Your task to perform on an android device: Open notification settings Image 0: 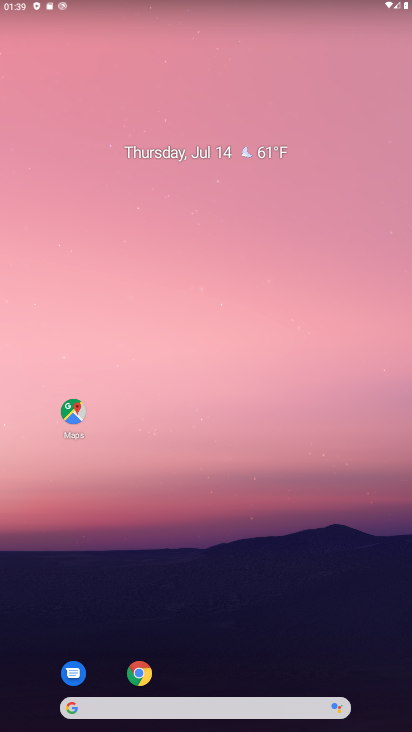
Step 0: drag from (318, 660) to (300, 190)
Your task to perform on an android device: Open notification settings Image 1: 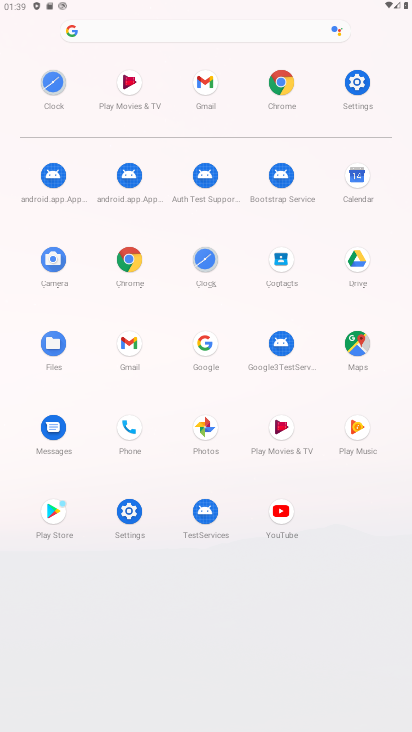
Step 1: click (352, 99)
Your task to perform on an android device: Open notification settings Image 2: 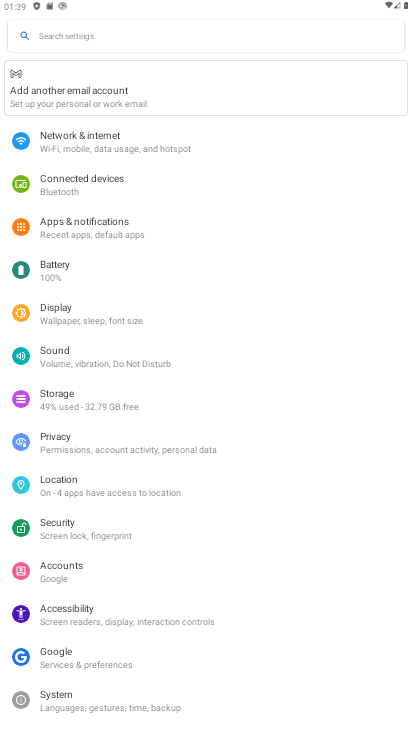
Step 2: click (141, 243)
Your task to perform on an android device: Open notification settings Image 3: 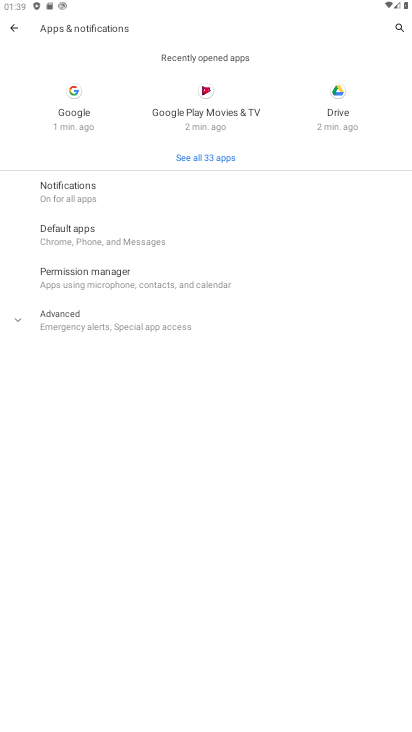
Step 3: task complete